Your task to perform on an android device: Open Reddit.com Image 0: 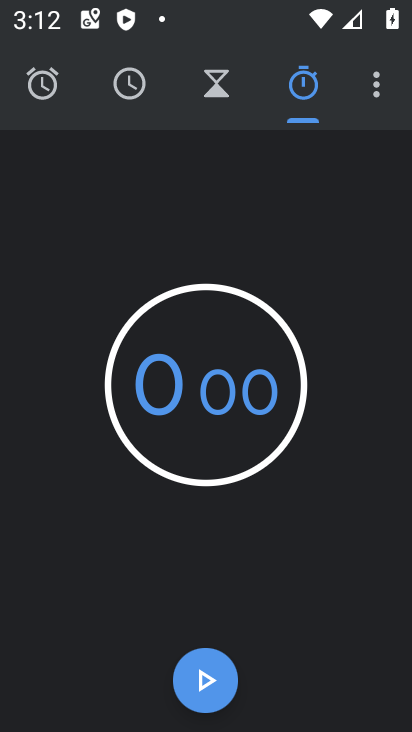
Step 0: press home button
Your task to perform on an android device: Open Reddit.com Image 1: 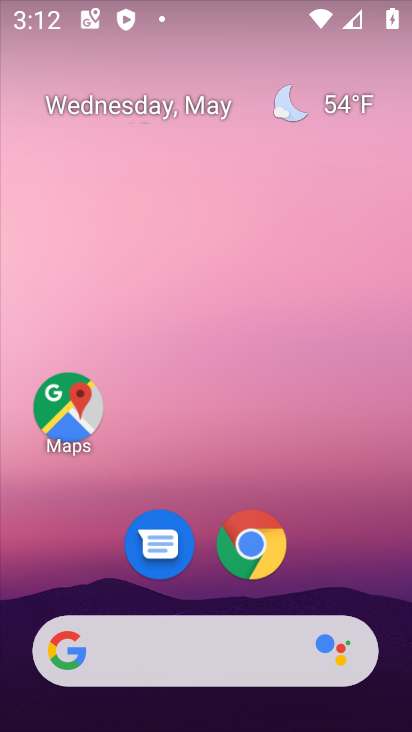
Step 1: click (323, 582)
Your task to perform on an android device: Open Reddit.com Image 2: 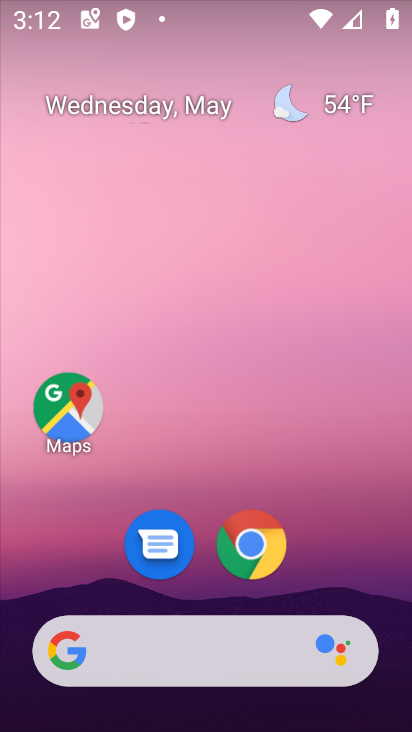
Step 2: click (276, 555)
Your task to perform on an android device: Open Reddit.com Image 3: 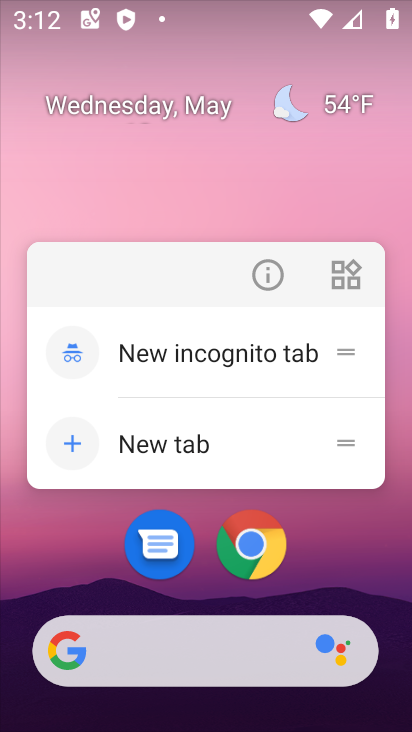
Step 3: click (266, 516)
Your task to perform on an android device: Open Reddit.com Image 4: 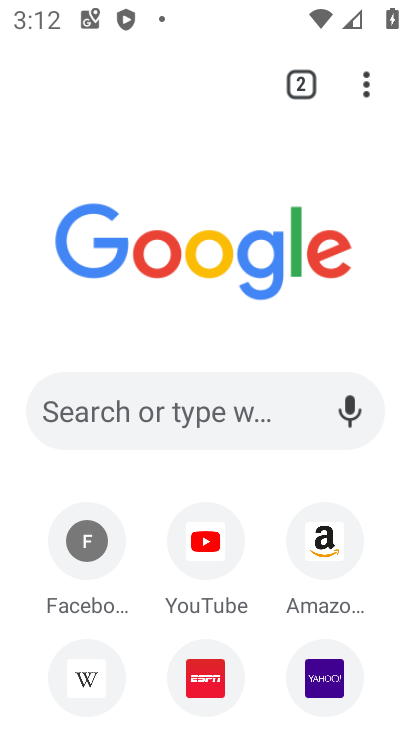
Step 4: click (193, 417)
Your task to perform on an android device: Open Reddit.com Image 5: 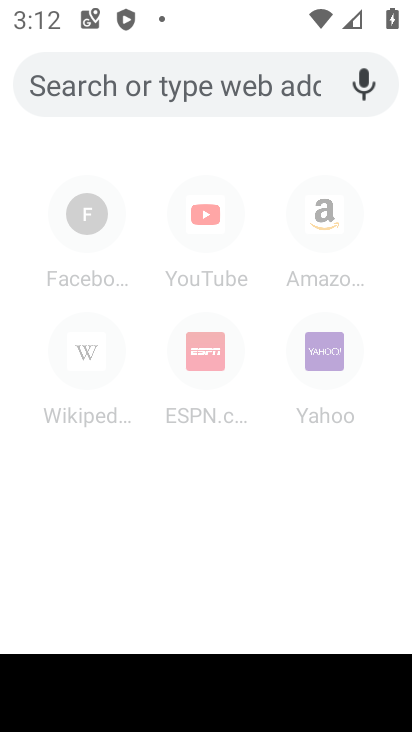
Step 5: type "reddit.com"
Your task to perform on an android device: Open Reddit.com Image 6: 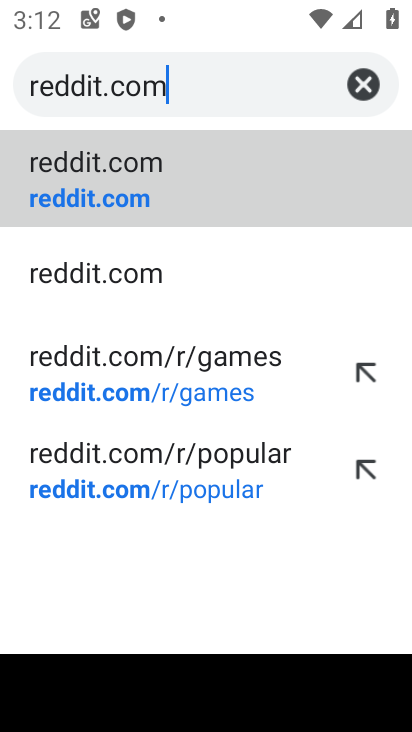
Step 6: click (144, 198)
Your task to perform on an android device: Open Reddit.com Image 7: 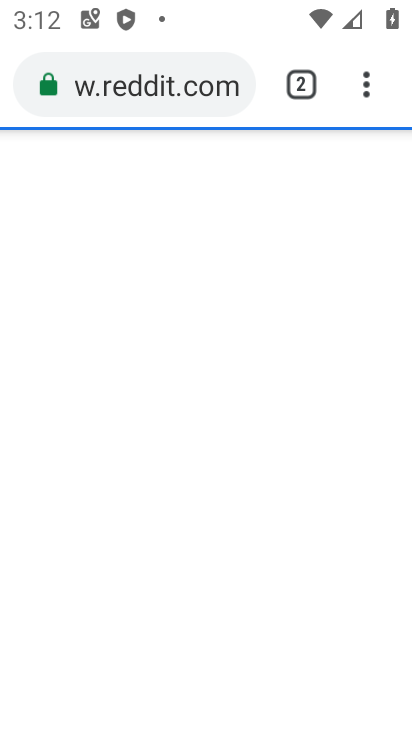
Step 7: task complete